Your task to perform on an android device: delete a single message in the gmail app Image 0: 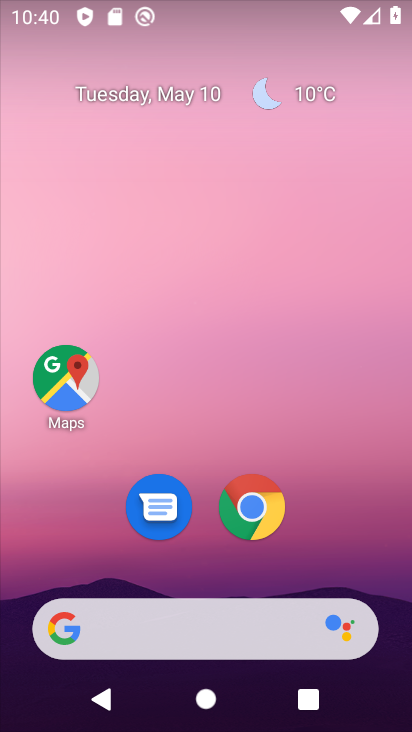
Step 0: drag from (241, 713) to (241, 151)
Your task to perform on an android device: delete a single message in the gmail app Image 1: 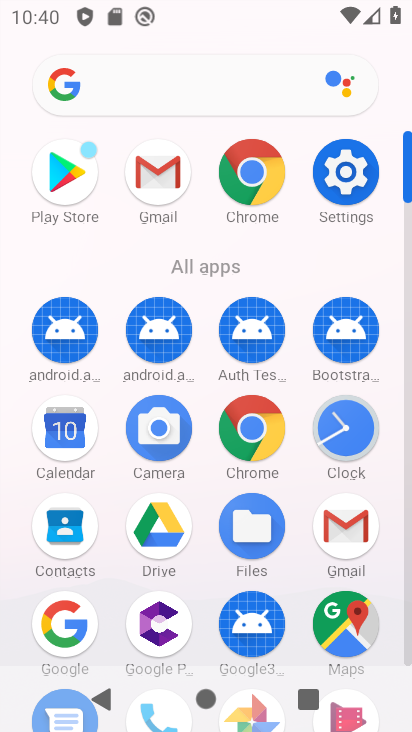
Step 1: click (154, 173)
Your task to perform on an android device: delete a single message in the gmail app Image 2: 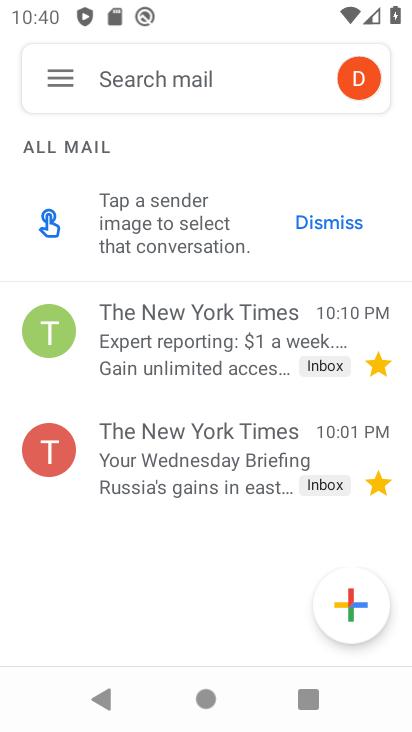
Step 2: click (66, 81)
Your task to perform on an android device: delete a single message in the gmail app Image 3: 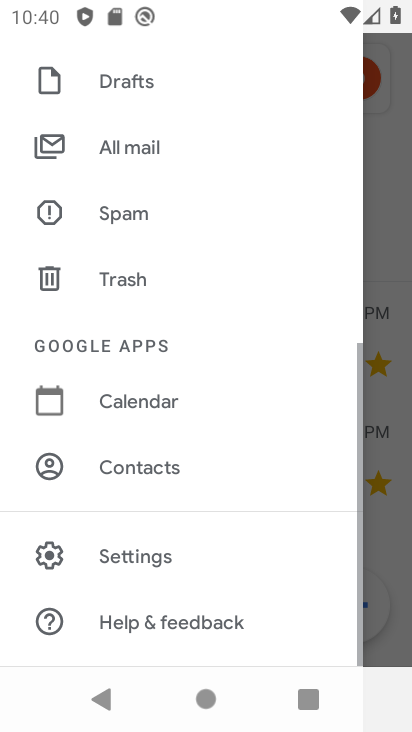
Step 3: drag from (196, 113) to (190, 502)
Your task to perform on an android device: delete a single message in the gmail app Image 4: 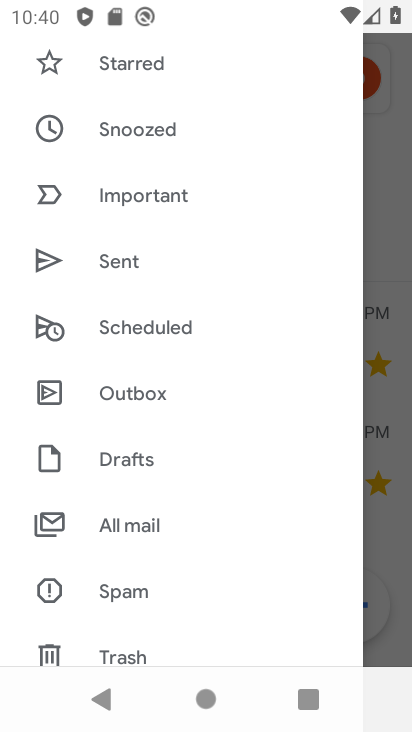
Step 4: drag from (140, 130) to (135, 501)
Your task to perform on an android device: delete a single message in the gmail app Image 5: 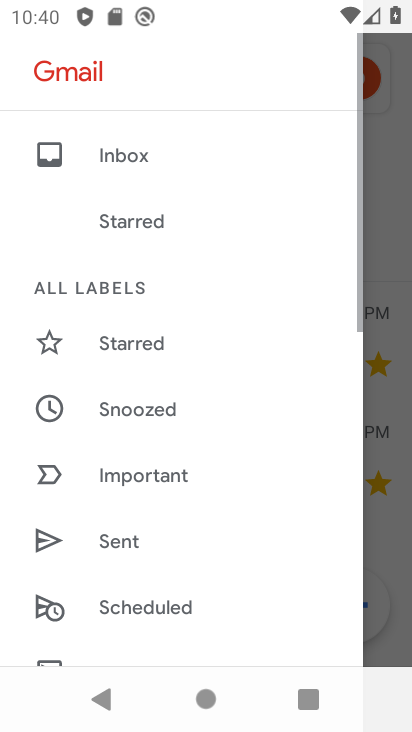
Step 5: click (125, 157)
Your task to perform on an android device: delete a single message in the gmail app Image 6: 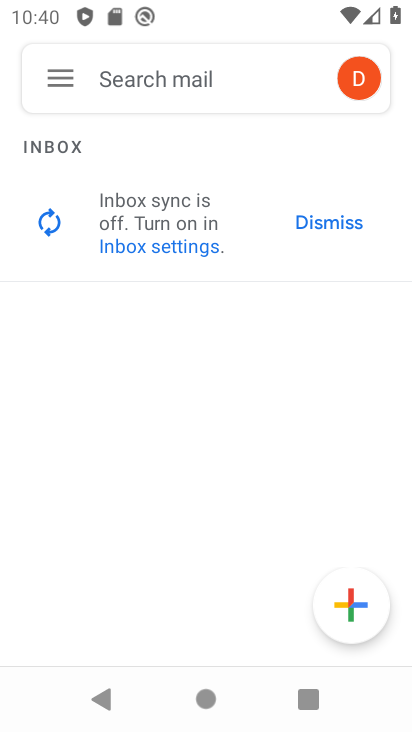
Step 6: task complete